Your task to perform on an android device: Do I have any events this weekend? Image 0: 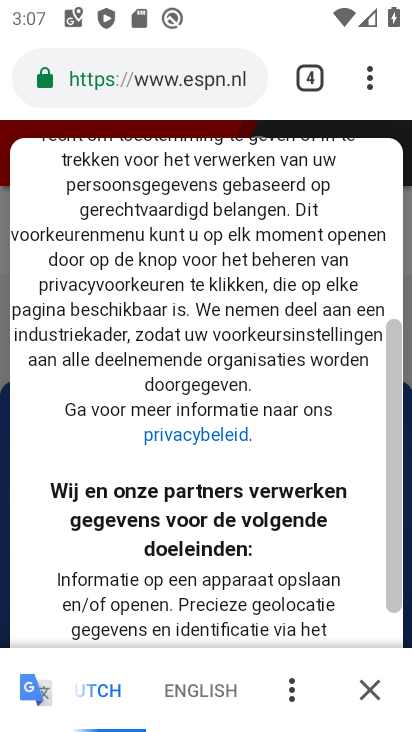
Step 0: press home button
Your task to perform on an android device: Do I have any events this weekend? Image 1: 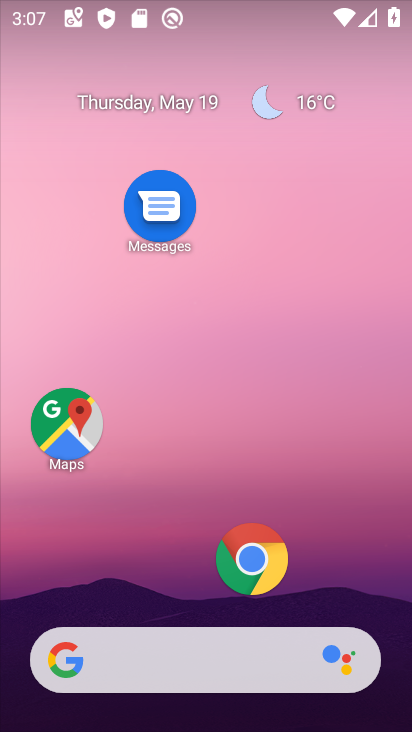
Step 1: drag from (196, 598) to (241, 184)
Your task to perform on an android device: Do I have any events this weekend? Image 2: 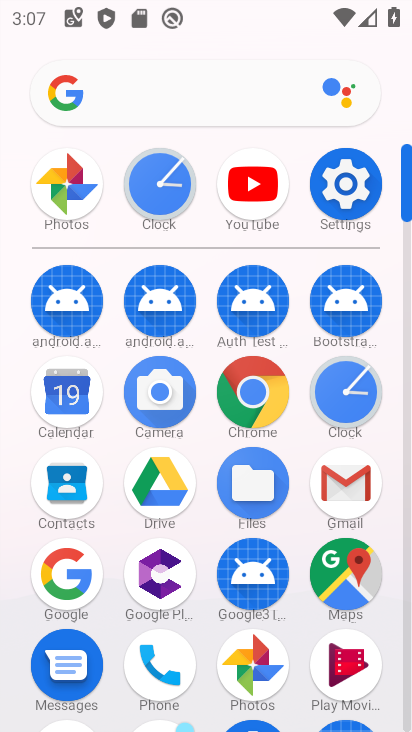
Step 2: click (331, 202)
Your task to perform on an android device: Do I have any events this weekend? Image 3: 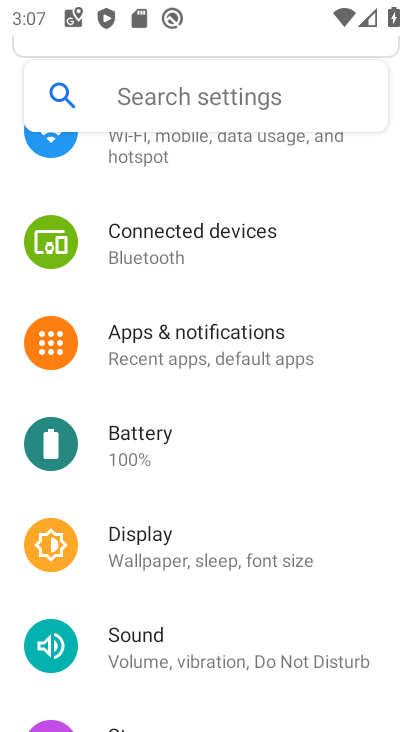
Step 3: press back button
Your task to perform on an android device: Do I have any events this weekend? Image 4: 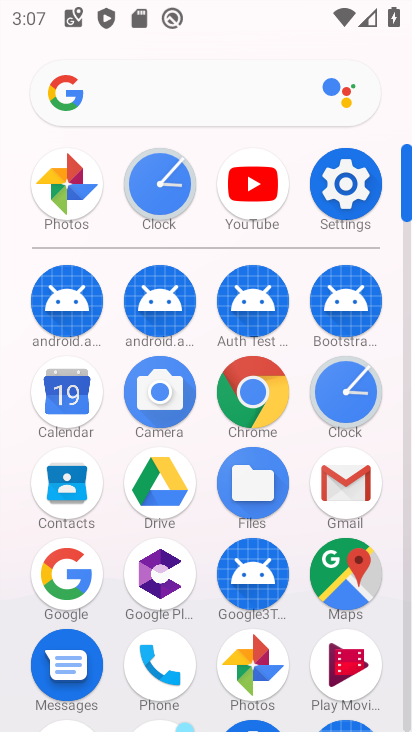
Step 4: press home button
Your task to perform on an android device: Do I have any events this weekend? Image 5: 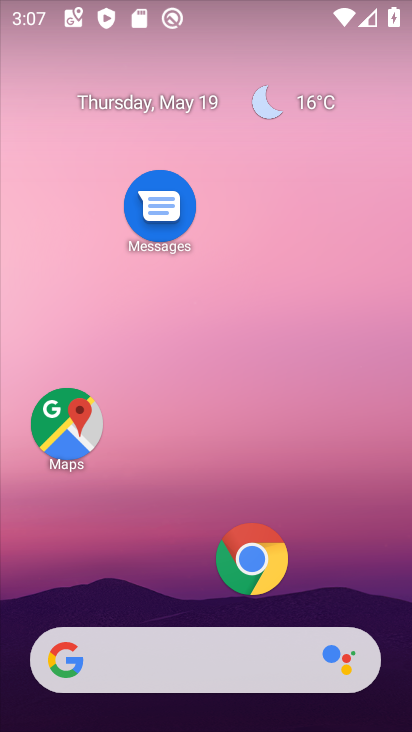
Step 5: drag from (185, 605) to (235, 167)
Your task to perform on an android device: Do I have any events this weekend? Image 6: 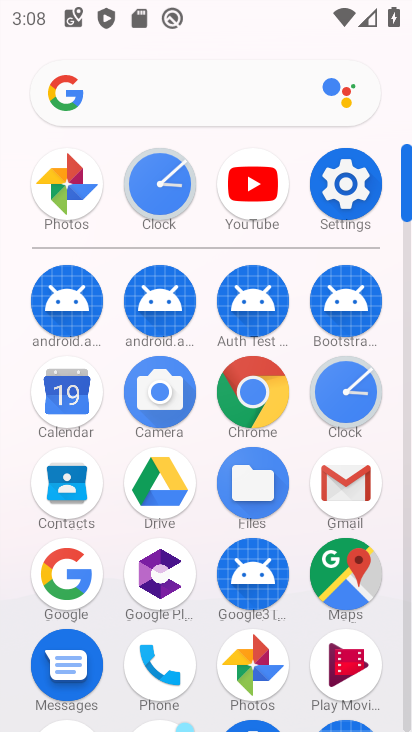
Step 6: click (69, 406)
Your task to perform on an android device: Do I have any events this weekend? Image 7: 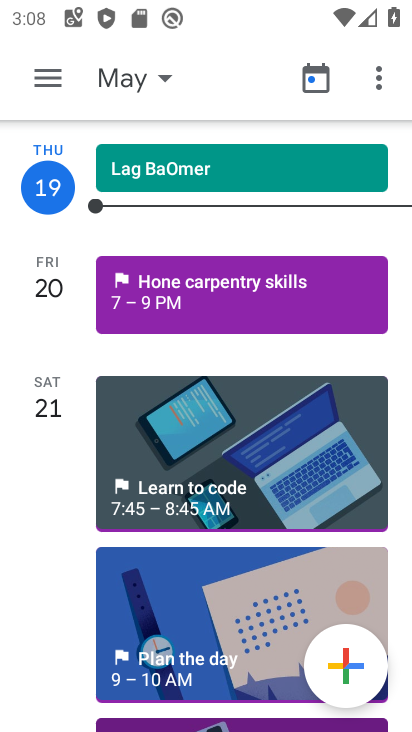
Step 7: click (151, 78)
Your task to perform on an android device: Do I have any events this weekend? Image 8: 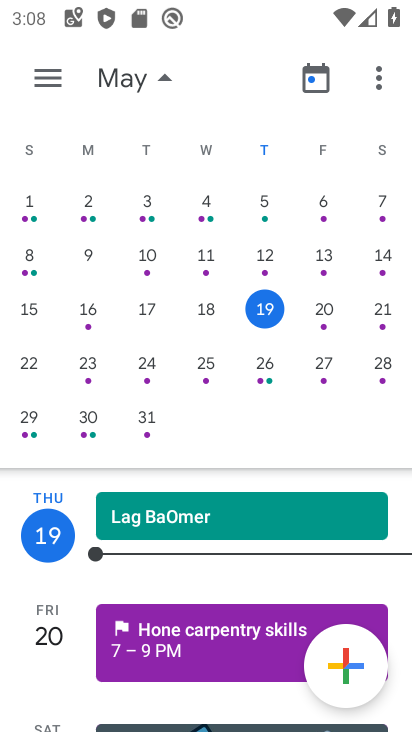
Step 8: click (375, 313)
Your task to perform on an android device: Do I have any events this weekend? Image 9: 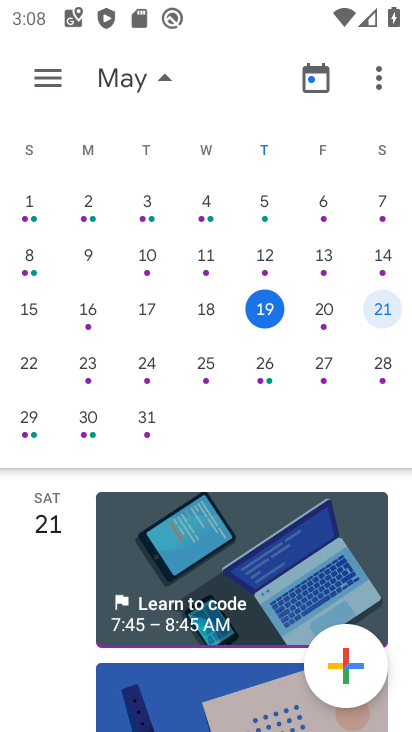
Step 9: drag from (271, 551) to (270, 445)
Your task to perform on an android device: Do I have any events this weekend? Image 10: 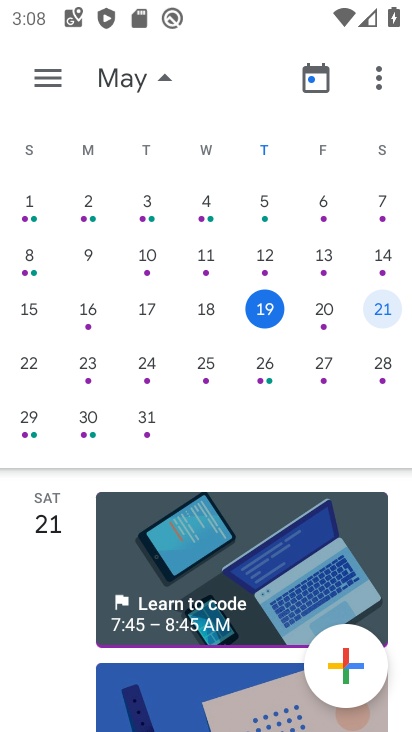
Step 10: click (20, 255)
Your task to perform on an android device: Do I have any events this weekend? Image 11: 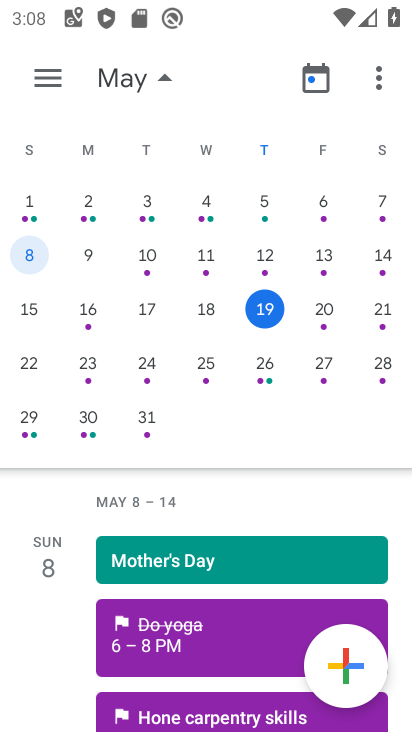
Step 11: task complete